Your task to perform on an android device: What's the weather going to be this weekend? Image 0: 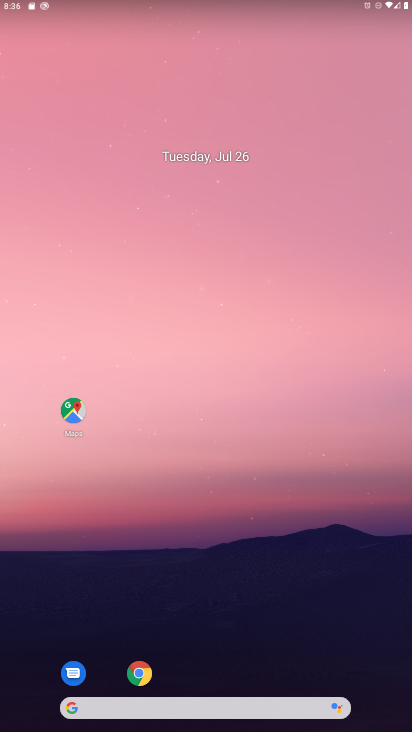
Step 0: drag from (308, 673) to (94, 22)
Your task to perform on an android device: What's the weather going to be this weekend? Image 1: 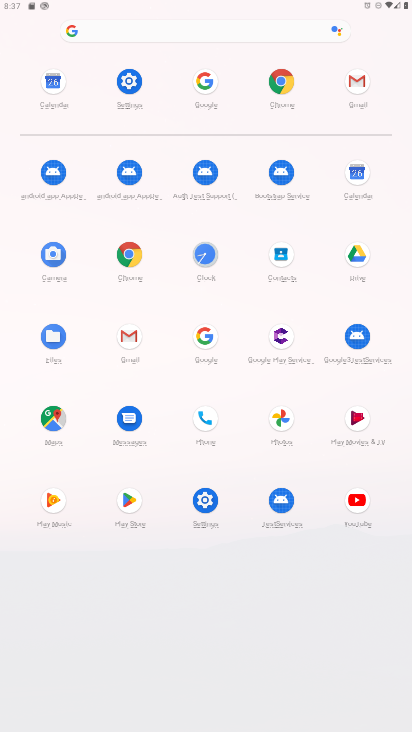
Step 1: click (211, 332)
Your task to perform on an android device: What's the weather going to be this weekend? Image 2: 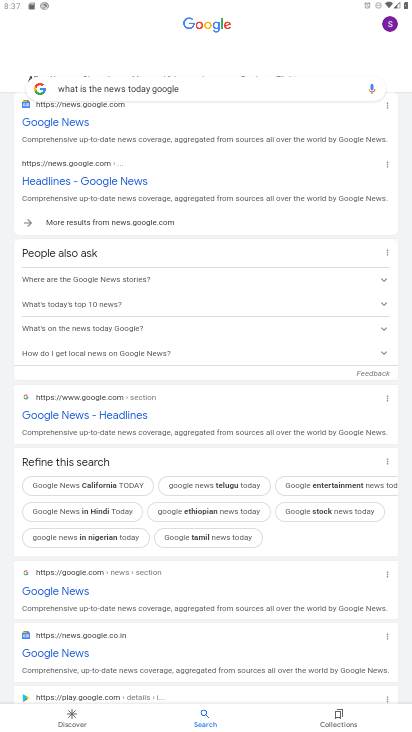
Step 2: press back button
Your task to perform on an android device: What's the weather going to be this weekend? Image 3: 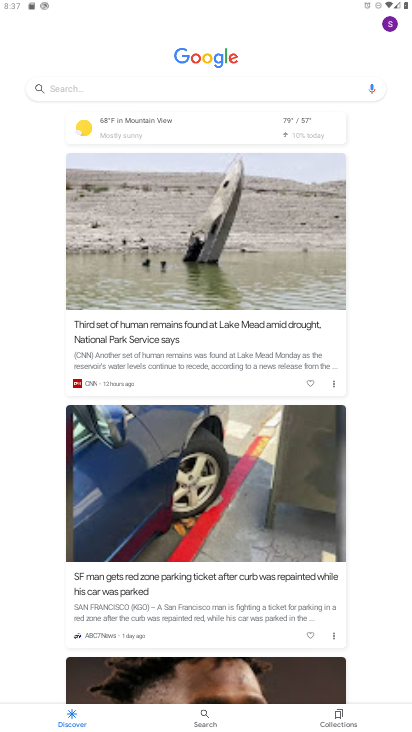
Step 3: click (132, 87)
Your task to perform on an android device: What's the weather going to be this weekend? Image 4: 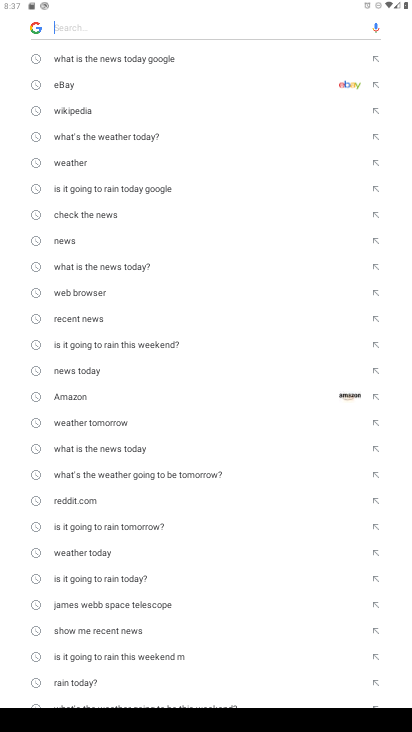
Step 4: drag from (167, 620) to (151, 253)
Your task to perform on an android device: What's the weather going to be this weekend? Image 5: 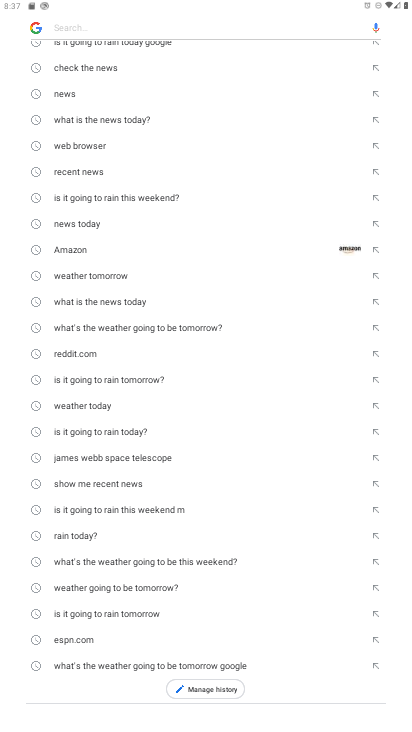
Step 5: drag from (110, 663) to (12, 492)
Your task to perform on an android device: What's the weather going to be this weekend? Image 6: 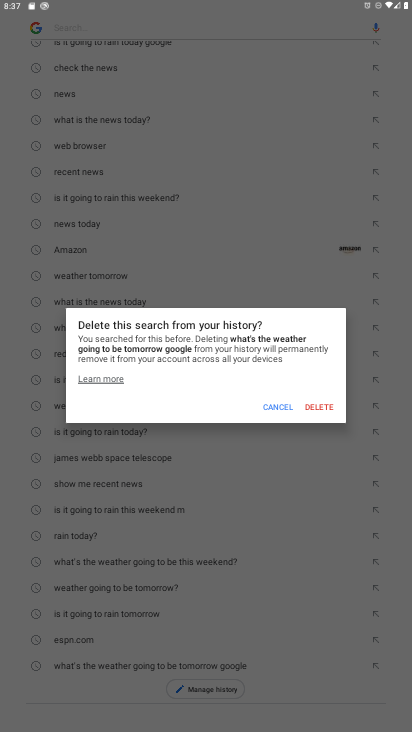
Step 6: click (271, 416)
Your task to perform on an android device: What's the weather going to be this weekend? Image 7: 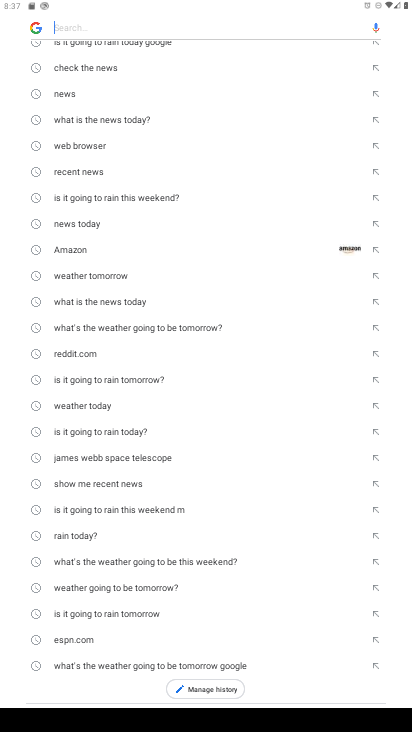
Step 7: type "What's the weather going to be this weekend?"
Your task to perform on an android device: What's the weather going to be this weekend? Image 8: 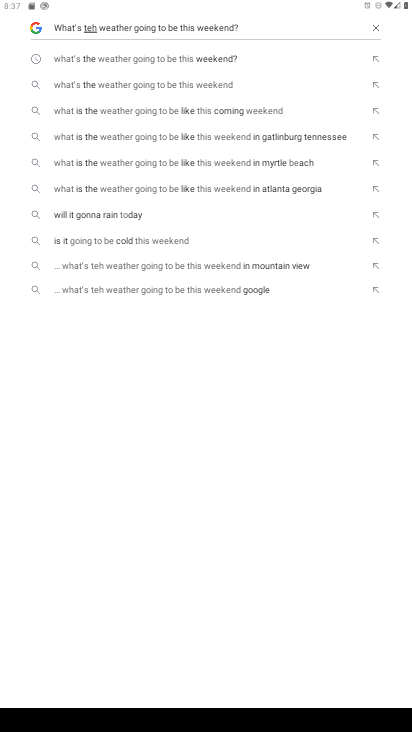
Step 8: click (136, 58)
Your task to perform on an android device: What's the weather going to be this weekend? Image 9: 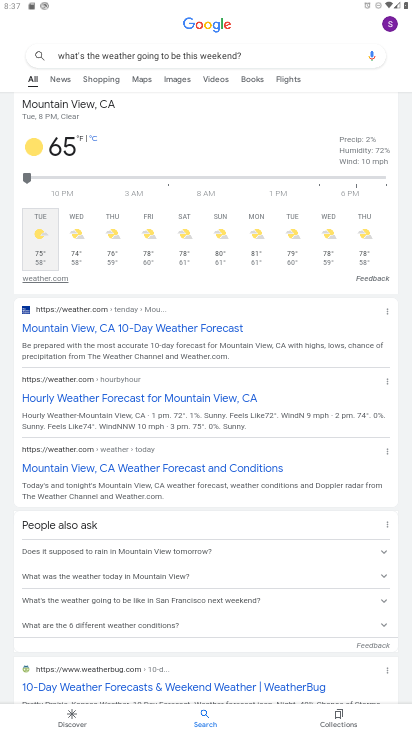
Step 9: task complete